Your task to perform on an android device: turn on data saver in the chrome app Image 0: 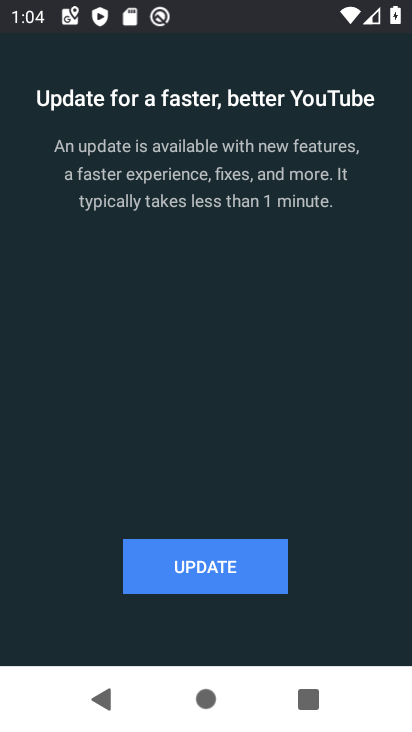
Step 0: press home button
Your task to perform on an android device: turn on data saver in the chrome app Image 1: 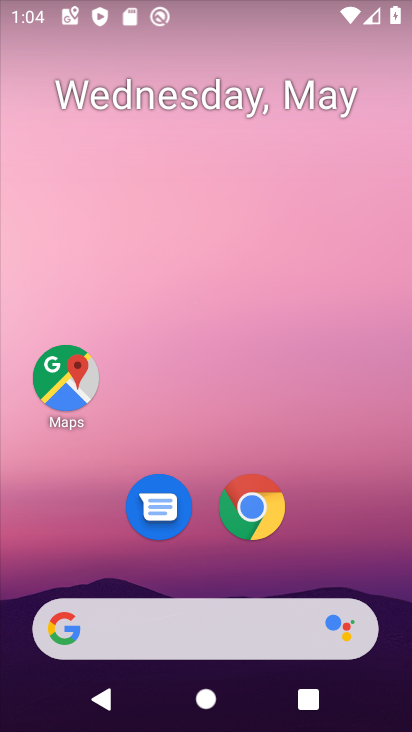
Step 1: click (256, 493)
Your task to perform on an android device: turn on data saver in the chrome app Image 2: 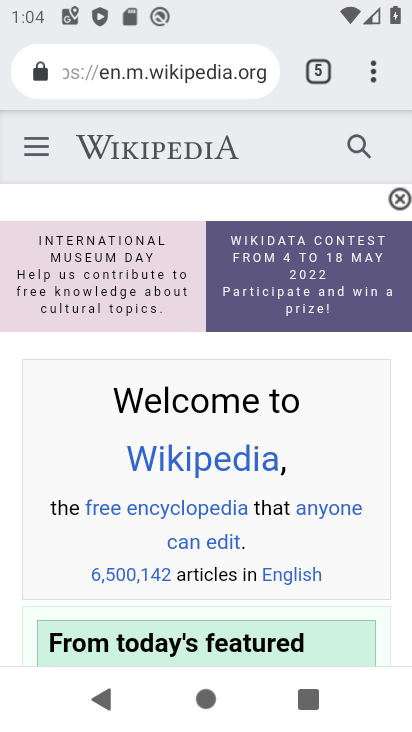
Step 2: click (375, 73)
Your task to perform on an android device: turn on data saver in the chrome app Image 3: 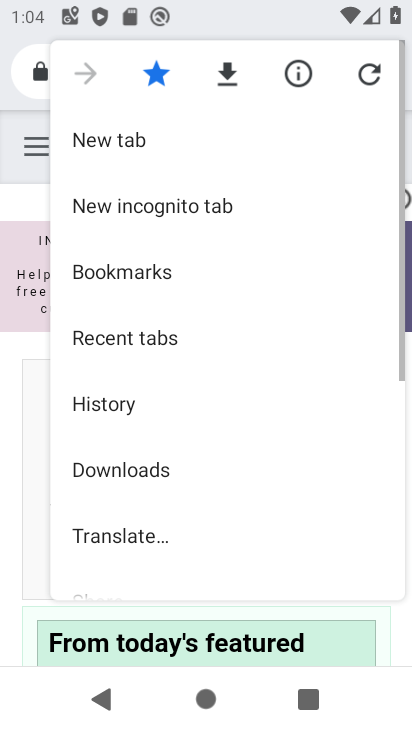
Step 3: drag from (190, 543) to (240, 175)
Your task to perform on an android device: turn on data saver in the chrome app Image 4: 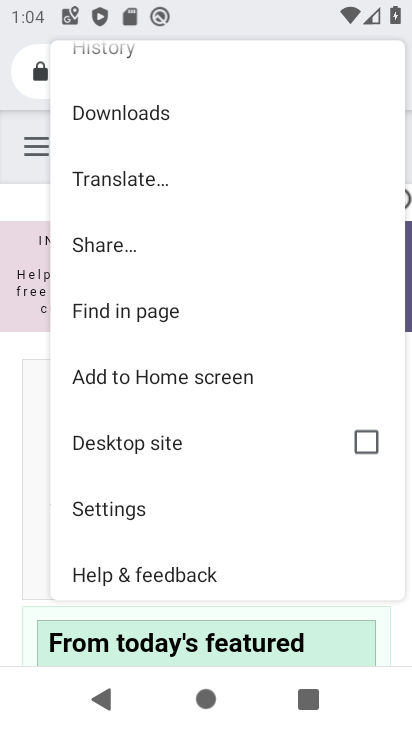
Step 4: click (154, 516)
Your task to perform on an android device: turn on data saver in the chrome app Image 5: 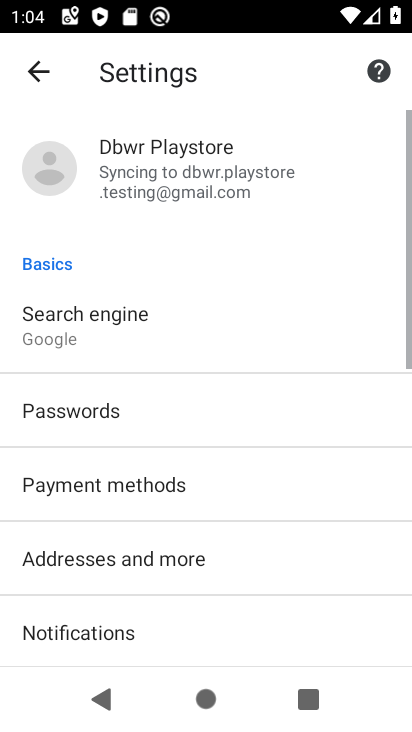
Step 5: drag from (217, 573) to (244, 184)
Your task to perform on an android device: turn on data saver in the chrome app Image 6: 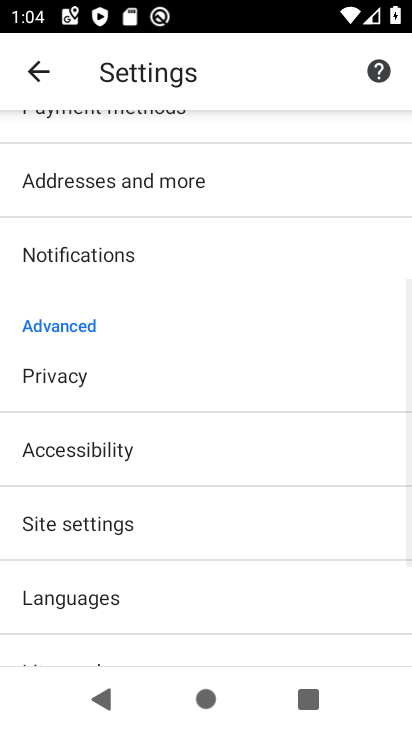
Step 6: drag from (136, 544) to (177, 328)
Your task to perform on an android device: turn on data saver in the chrome app Image 7: 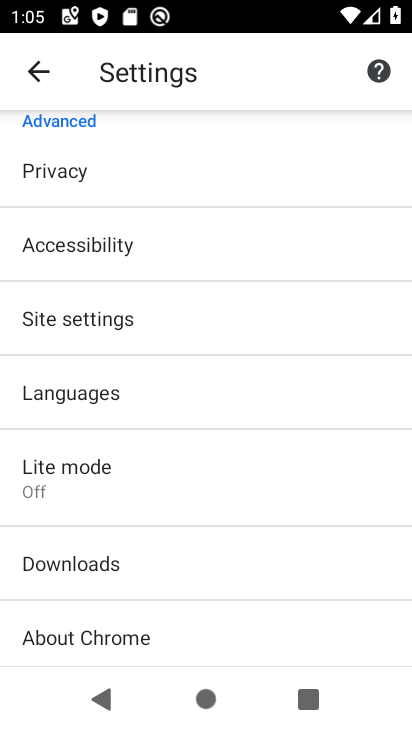
Step 7: click (104, 471)
Your task to perform on an android device: turn on data saver in the chrome app Image 8: 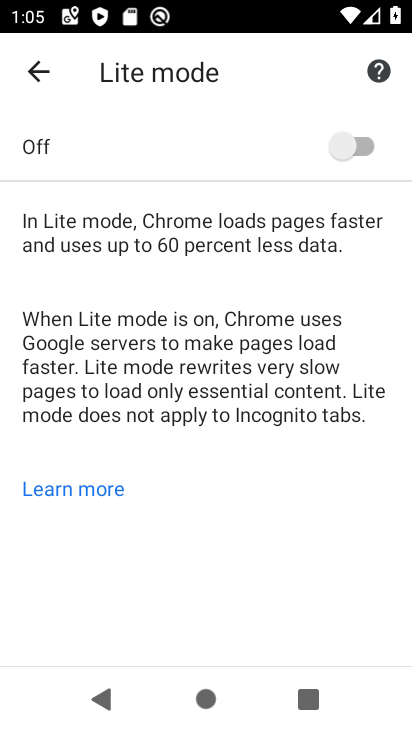
Step 8: click (375, 144)
Your task to perform on an android device: turn on data saver in the chrome app Image 9: 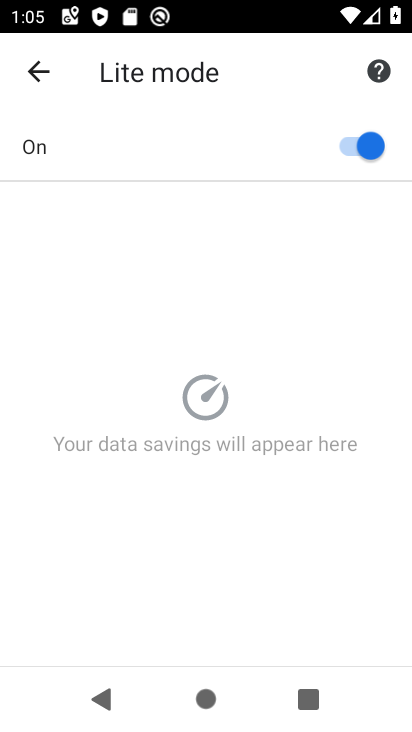
Step 9: task complete